Your task to perform on an android device: turn pop-ups off in chrome Image 0: 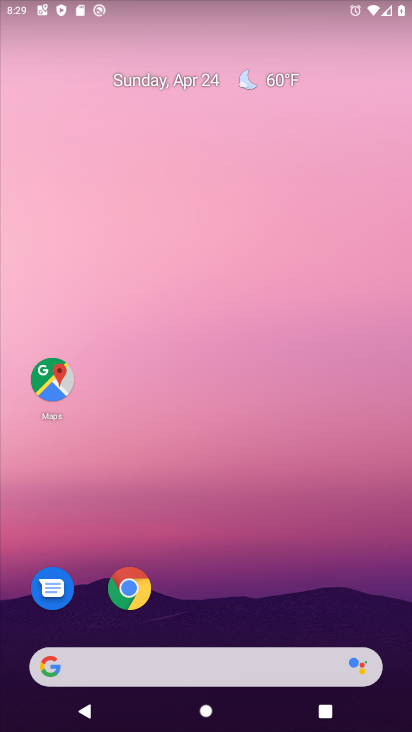
Step 0: click (131, 588)
Your task to perform on an android device: turn pop-ups off in chrome Image 1: 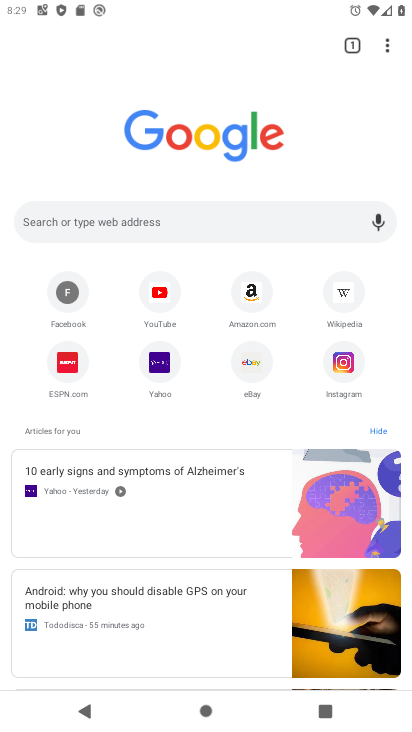
Step 1: click (388, 44)
Your task to perform on an android device: turn pop-ups off in chrome Image 2: 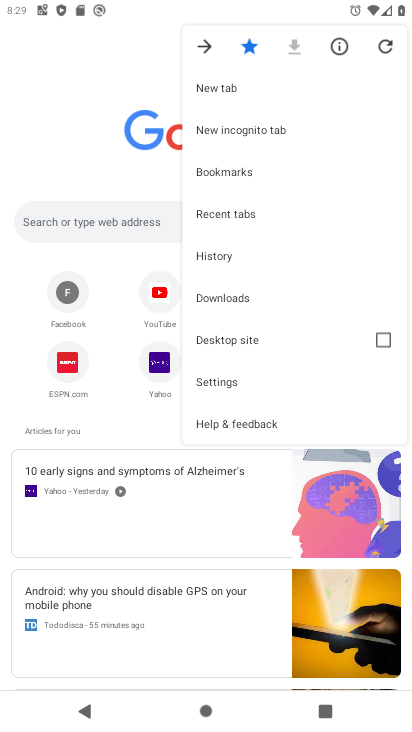
Step 2: click (225, 382)
Your task to perform on an android device: turn pop-ups off in chrome Image 3: 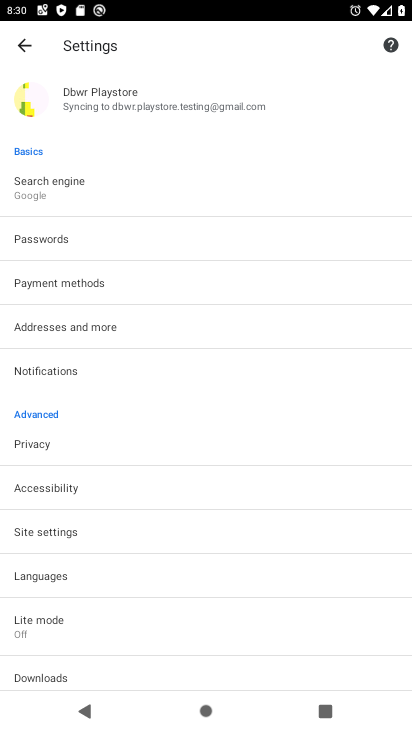
Step 3: click (64, 531)
Your task to perform on an android device: turn pop-ups off in chrome Image 4: 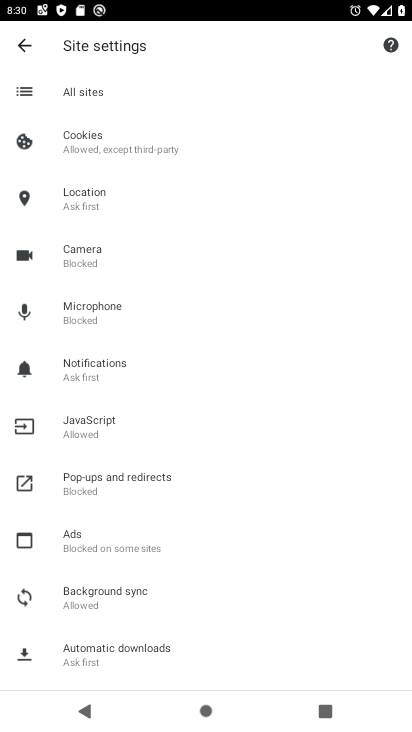
Step 4: click (97, 480)
Your task to perform on an android device: turn pop-ups off in chrome Image 5: 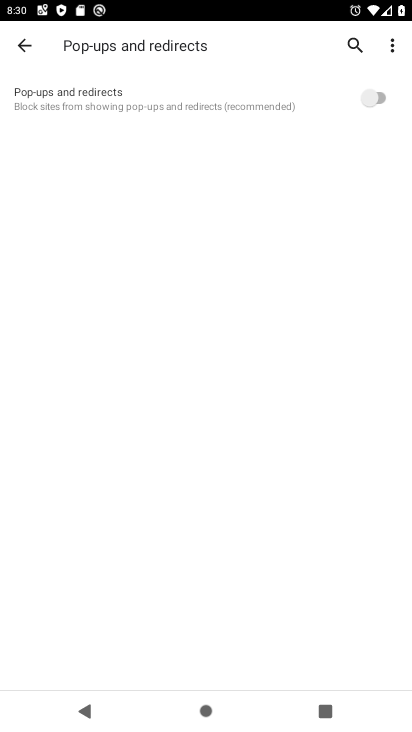
Step 5: task complete